Your task to perform on an android device: Open the web browser Image 0: 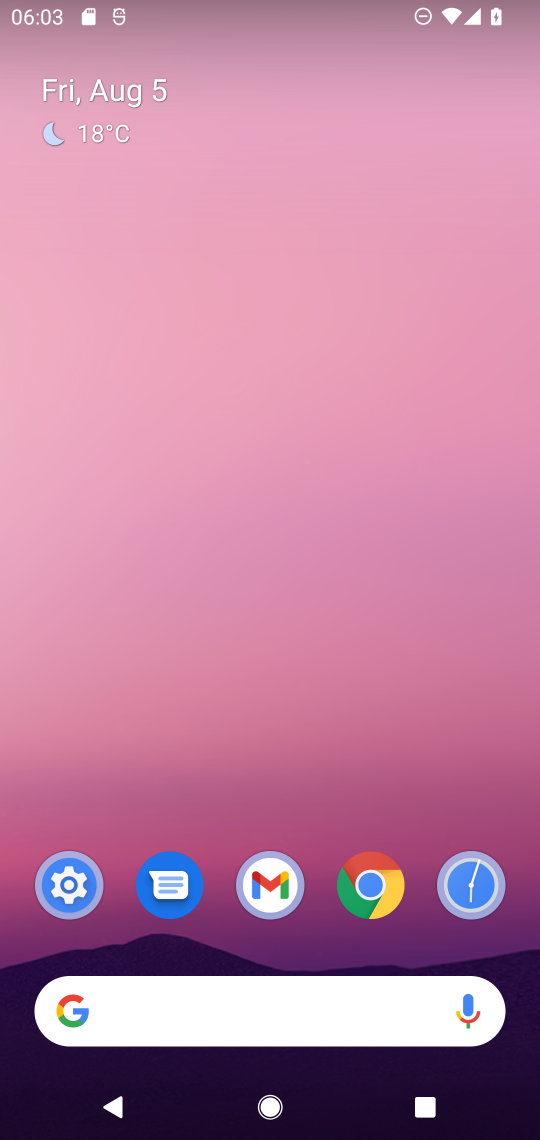
Step 0: click (372, 885)
Your task to perform on an android device: Open the web browser Image 1: 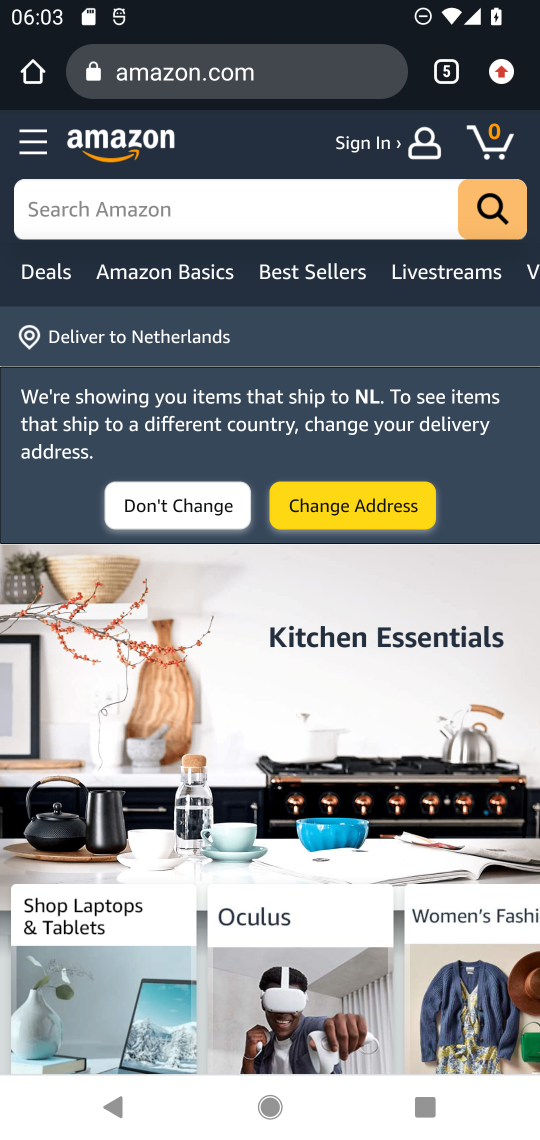
Step 1: task complete